Your task to perform on an android device: Do I have any events this weekend? Image 0: 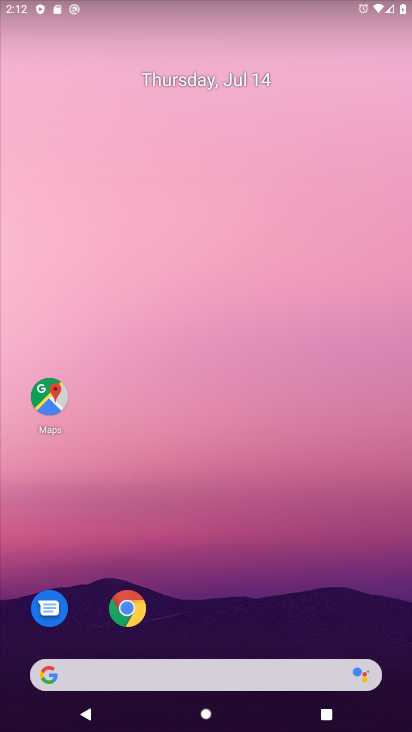
Step 0: drag from (247, 725) to (253, 184)
Your task to perform on an android device: Do I have any events this weekend? Image 1: 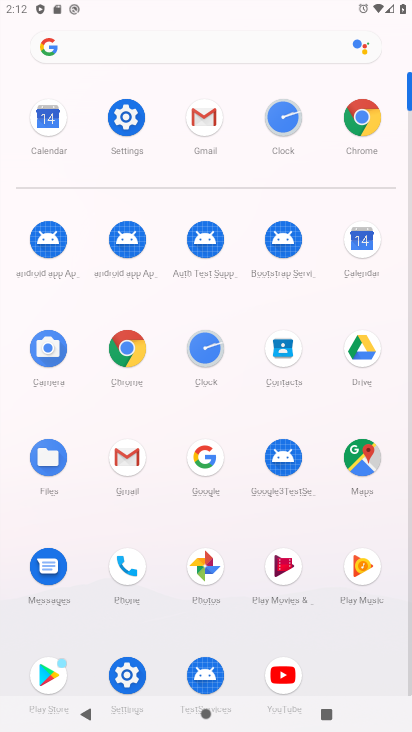
Step 1: click (367, 242)
Your task to perform on an android device: Do I have any events this weekend? Image 2: 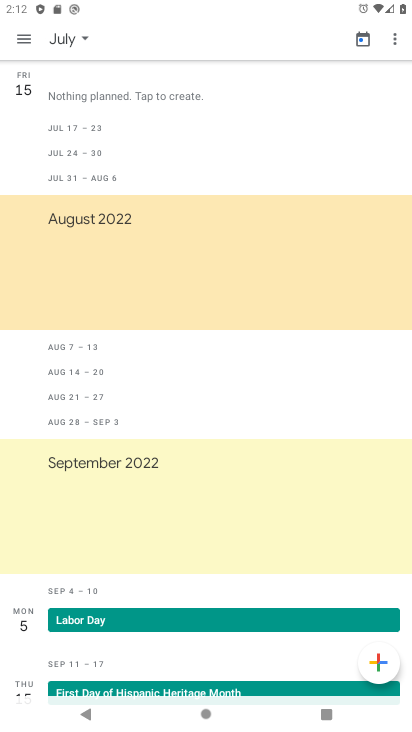
Step 2: click (75, 37)
Your task to perform on an android device: Do I have any events this weekend? Image 3: 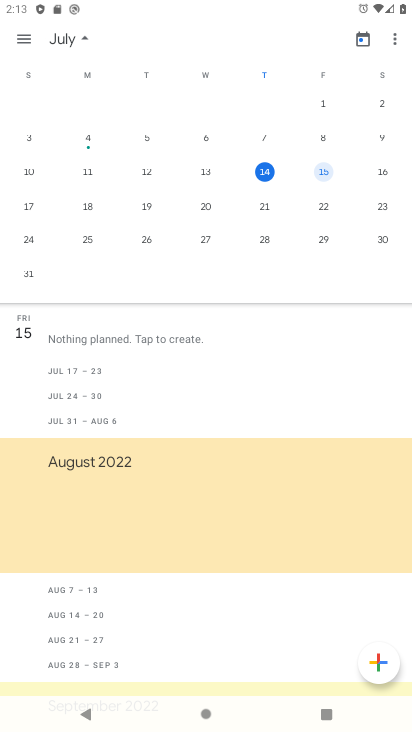
Step 3: click (385, 167)
Your task to perform on an android device: Do I have any events this weekend? Image 4: 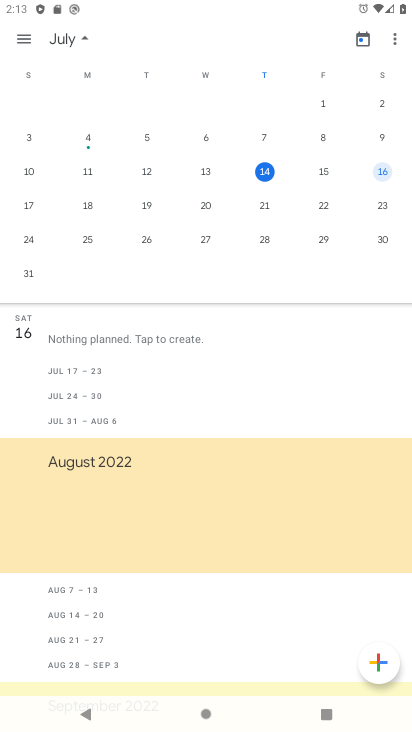
Step 4: click (377, 168)
Your task to perform on an android device: Do I have any events this weekend? Image 5: 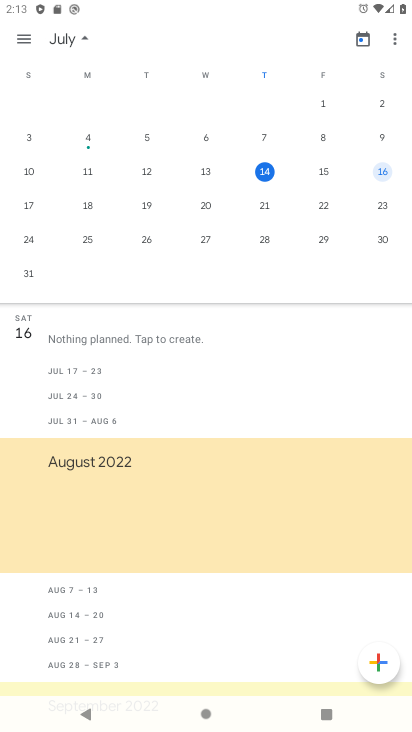
Step 5: click (27, 327)
Your task to perform on an android device: Do I have any events this weekend? Image 6: 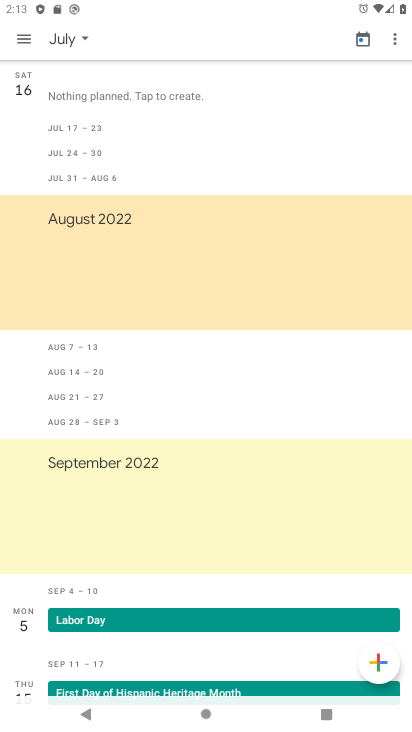
Step 6: task complete